Your task to perform on an android device: Open Chrome and go to settings Image 0: 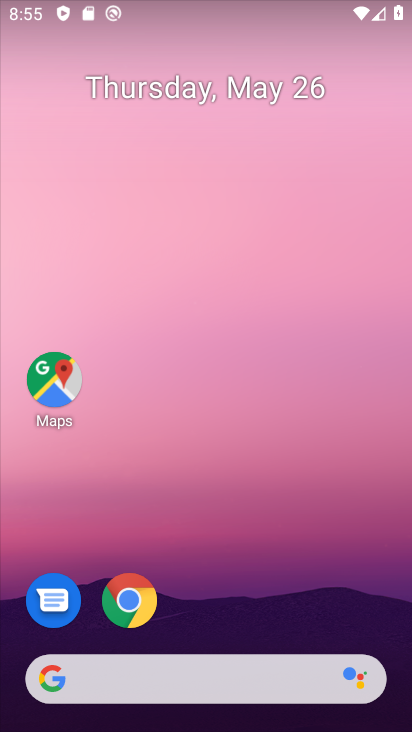
Step 0: click (120, 615)
Your task to perform on an android device: Open Chrome and go to settings Image 1: 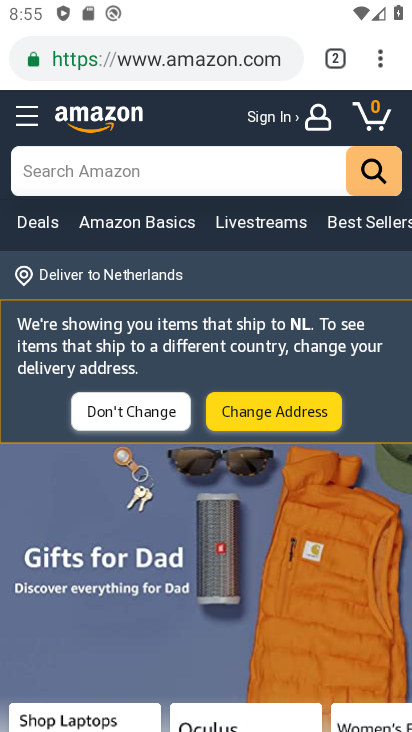
Step 1: click (396, 56)
Your task to perform on an android device: Open Chrome and go to settings Image 2: 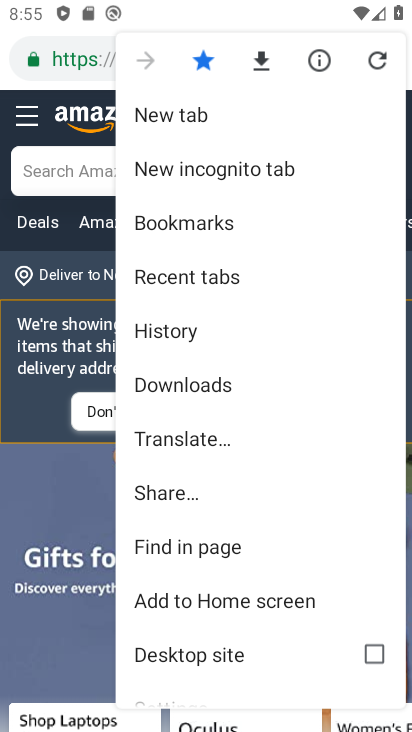
Step 2: drag from (174, 634) to (284, 115)
Your task to perform on an android device: Open Chrome and go to settings Image 3: 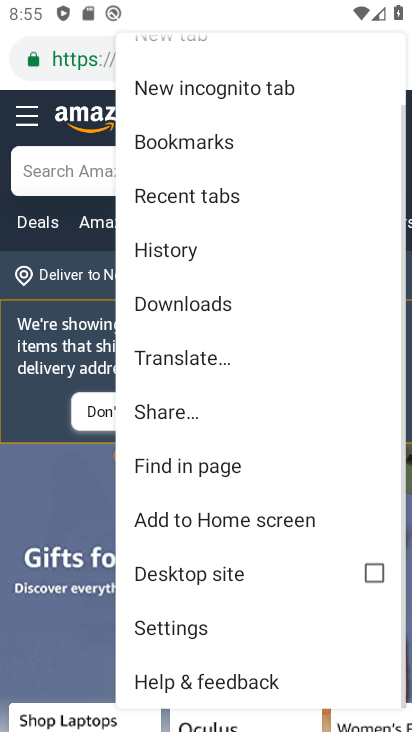
Step 3: click (164, 648)
Your task to perform on an android device: Open Chrome and go to settings Image 4: 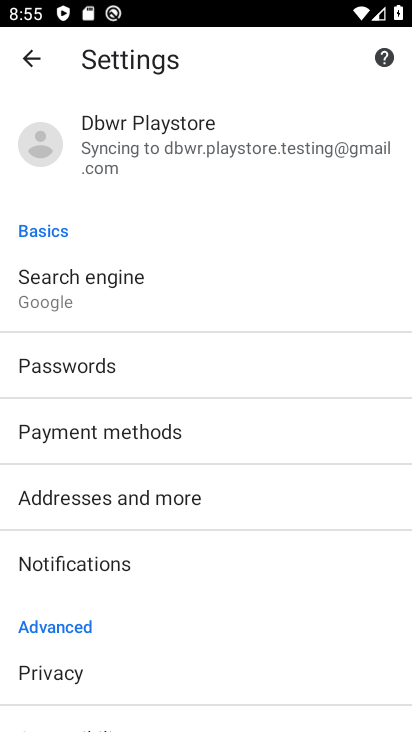
Step 4: task complete